Your task to perform on an android device: turn on the 12-hour format for clock Image 0: 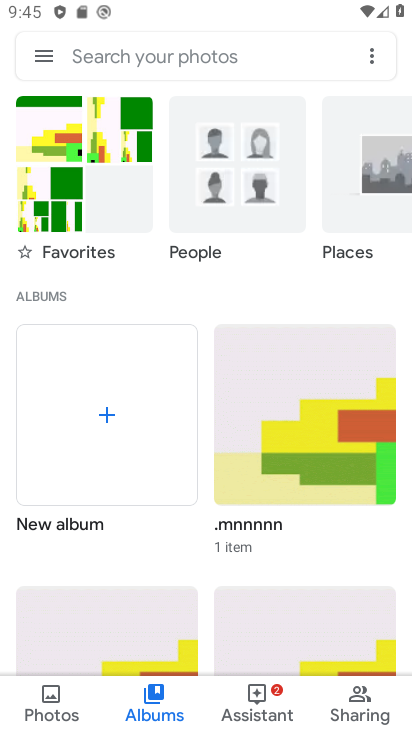
Step 0: press home button
Your task to perform on an android device: turn on the 12-hour format for clock Image 1: 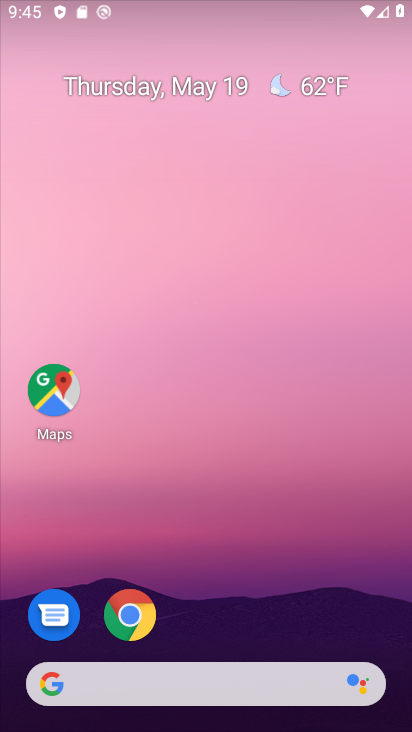
Step 1: drag from (299, 557) to (165, 32)
Your task to perform on an android device: turn on the 12-hour format for clock Image 2: 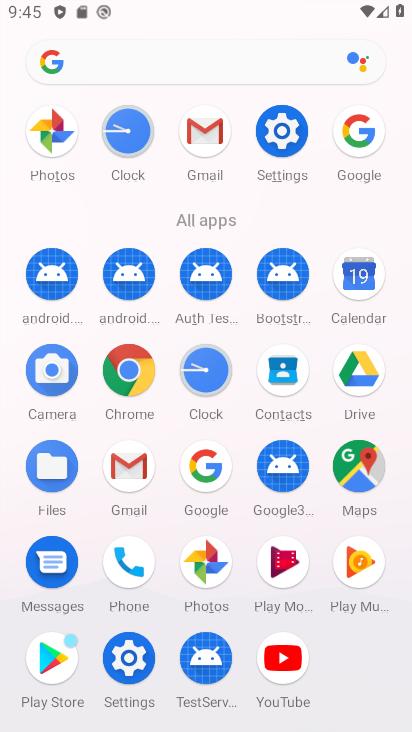
Step 2: click (109, 124)
Your task to perform on an android device: turn on the 12-hour format for clock Image 3: 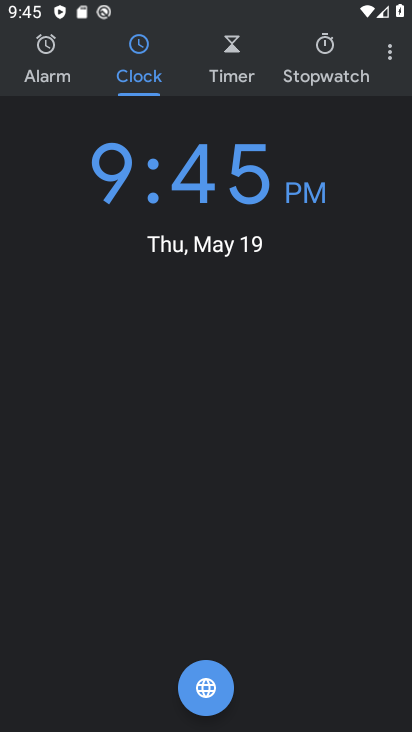
Step 3: click (390, 49)
Your task to perform on an android device: turn on the 12-hour format for clock Image 4: 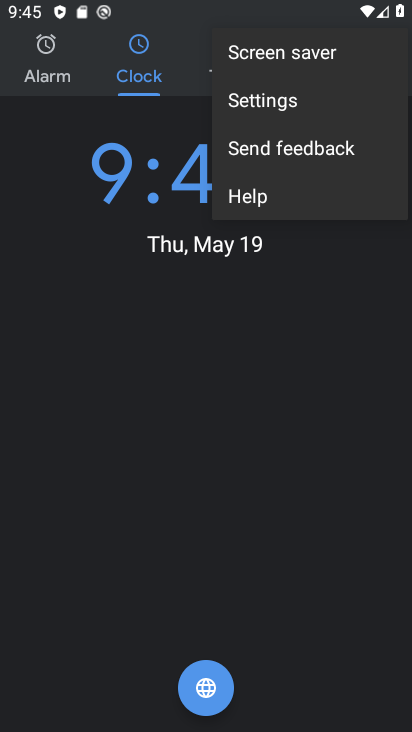
Step 4: click (274, 99)
Your task to perform on an android device: turn on the 12-hour format for clock Image 5: 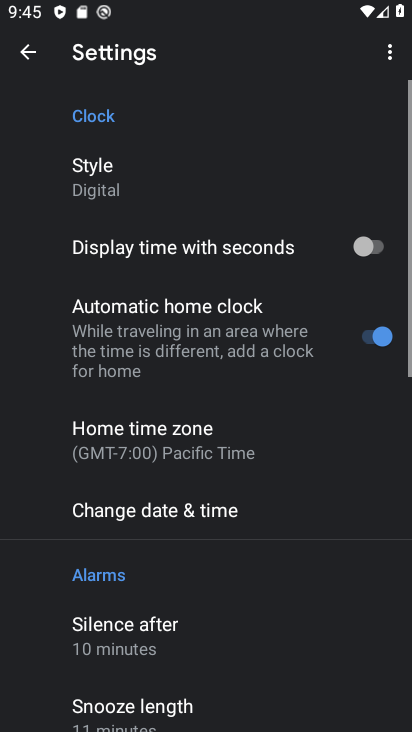
Step 5: click (280, 502)
Your task to perform on an android device: turn on the 12-hour format for clock Image 6: 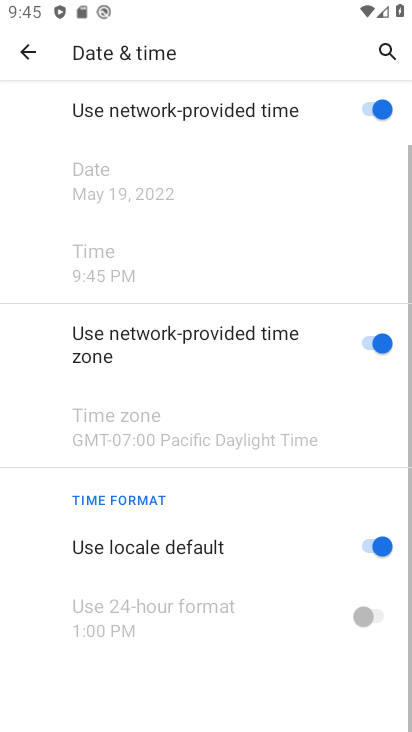
Step 6: click (290, 241)
Your task to perform on an android device: turn on the 12-hour format for clock Image 7: 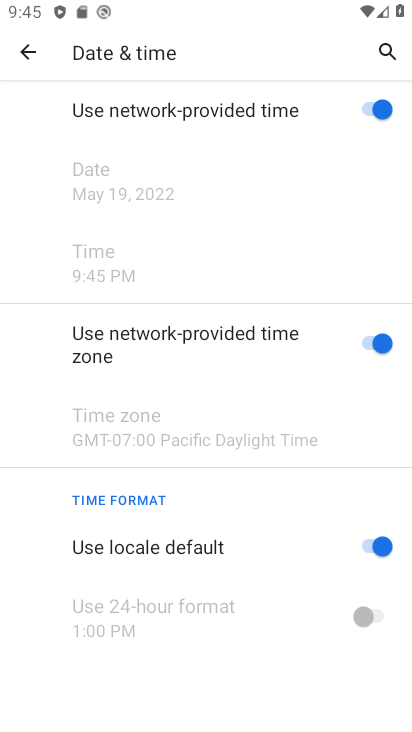
Step 7: task complete